Your task to perform on an android device: change your default location settings in chrome Image 0: 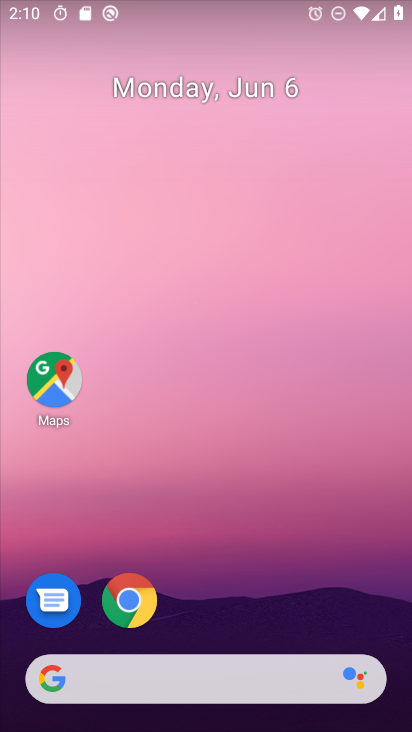
Step 0: click (232, 612)
Your task to perform on an android device: change your default location settings in chrome Image 1: 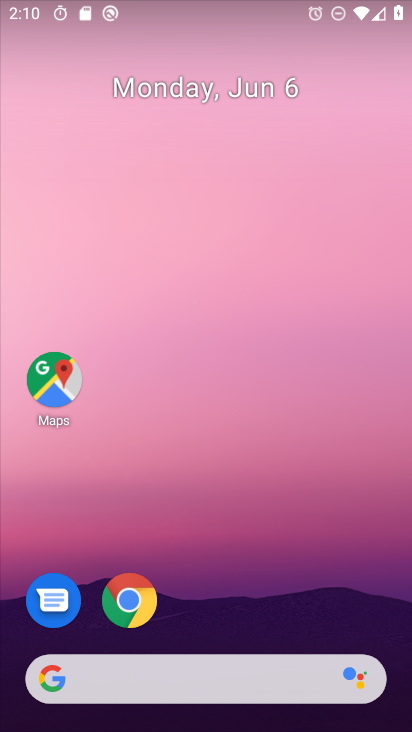
Step 1: click (127, 612)
Your task to perform on an android device: change your default location settings in chrome Image 2: 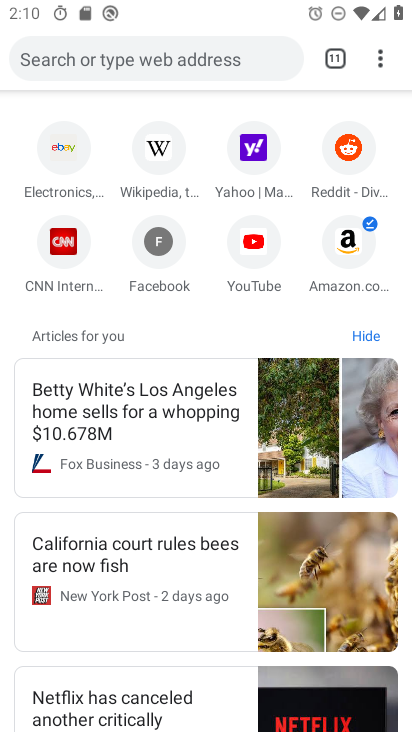
Step 2: click (376, 54)
Your task to perform on an android device: change your default location settings in chrome Image 3: 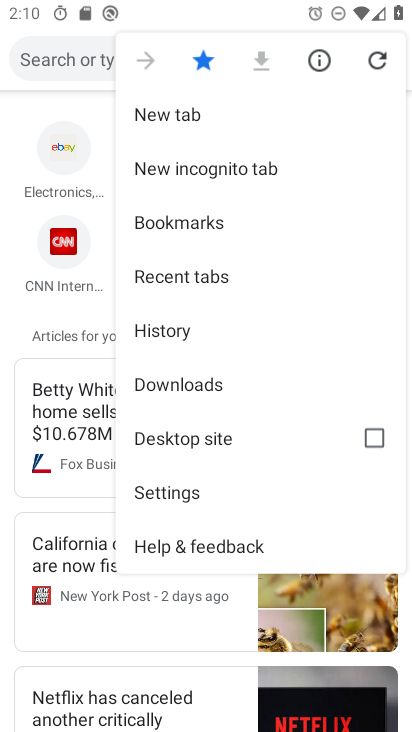
Step 3: click (194, 494)
Your task to perform on an android device: change your default location settings in chrome Image 4: 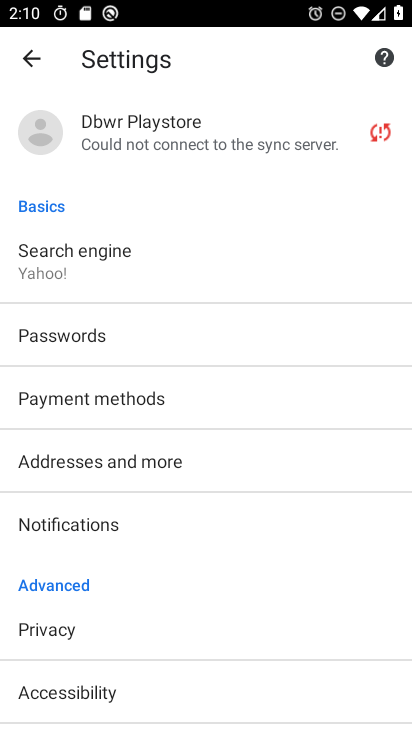
Step 4: drag from (118, 664) to (149, 392)
Your task to perform on an android device: change your default location settings in chrome Image 5: 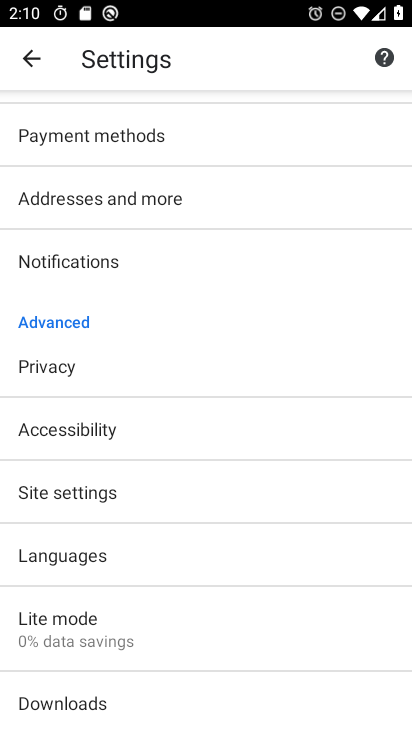
Step 5: click (98, 506)
Your task to perform on an android device: change your default location settings in chrome Image 6: 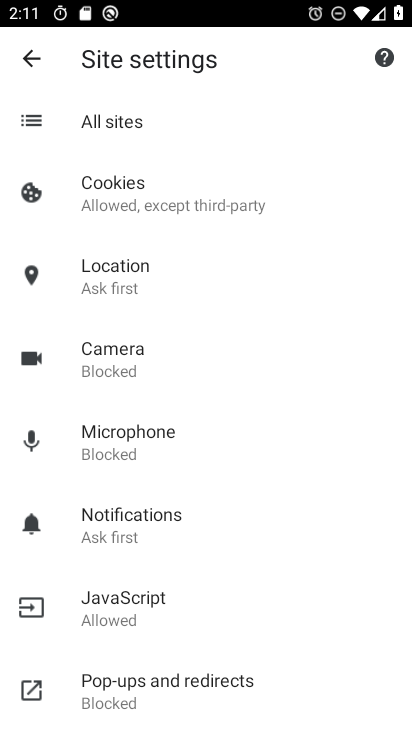
Step 6: drag from (201, 559) to (208, 335)
Your task to perform on an android device: change your default location settings in chrome Image 7: 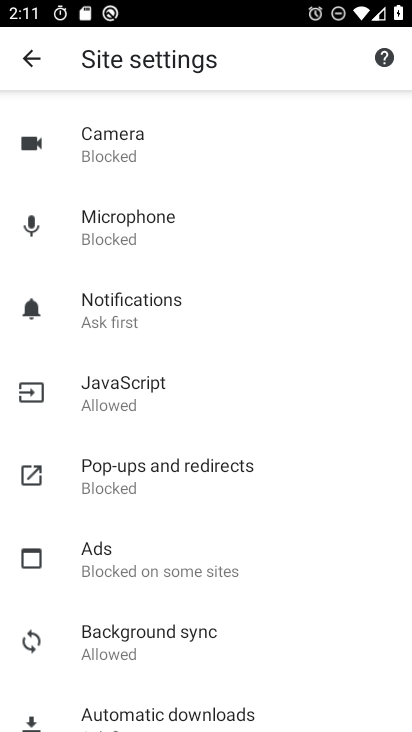
Step 7: drag from (206, 216) to (206, 390)
Your task to perform on an android device: change your default location settings in chrome Image 8: 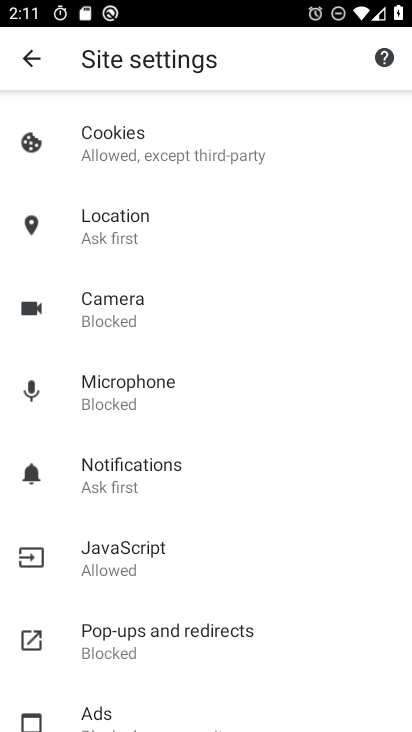
Step 8: click (128, 231)
Your task to perform on an android device: change your default location settings in chrome Image 9: 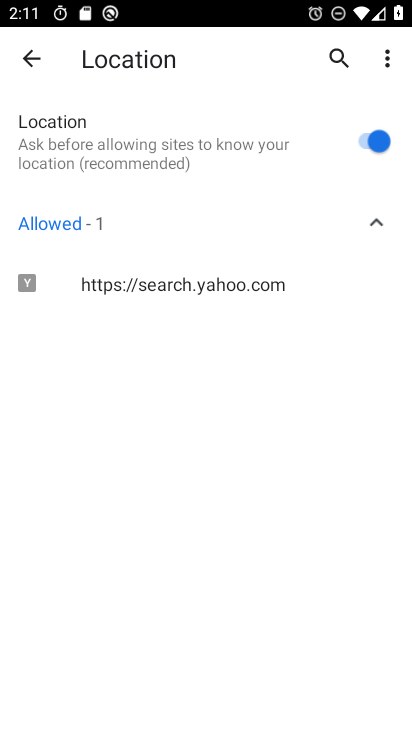
Step 9: click (363, 138)
Your task to perform on an android device: change your default location settings in chrome Image 10: 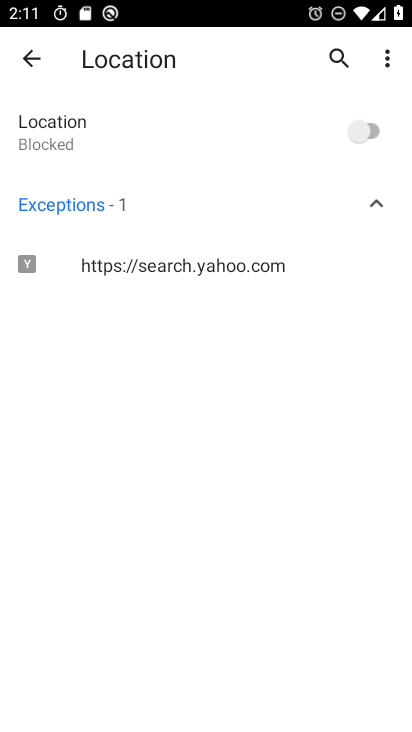
Step 10: task complete